Your task to perform on an android device: uninstall "Venmo" Image 0: 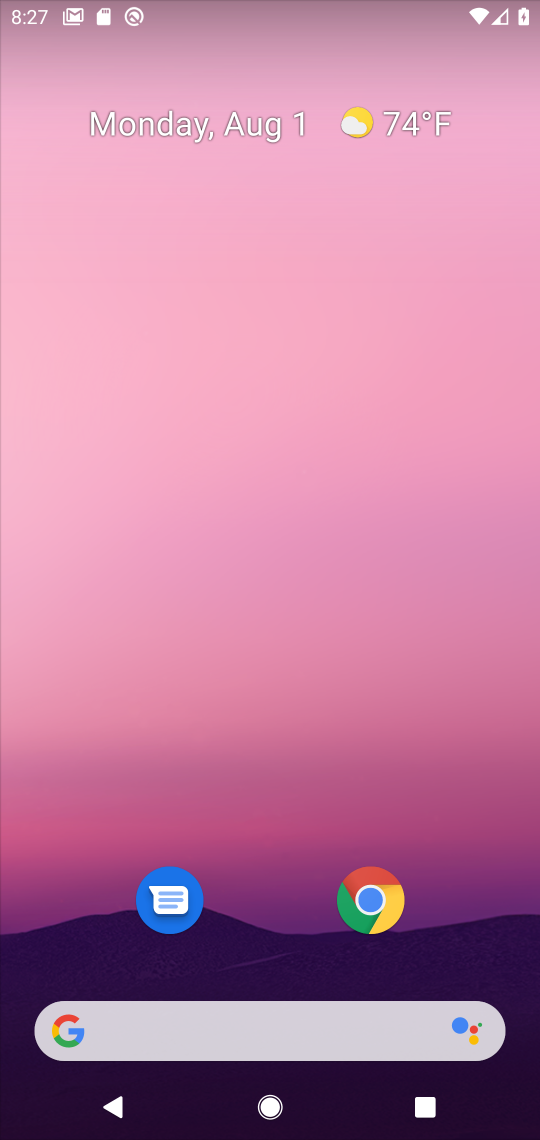
Step 0: drag from (299, 980) to (474, 53)
Your task to perform on an android device: uninstall "Venmo" Image 1: 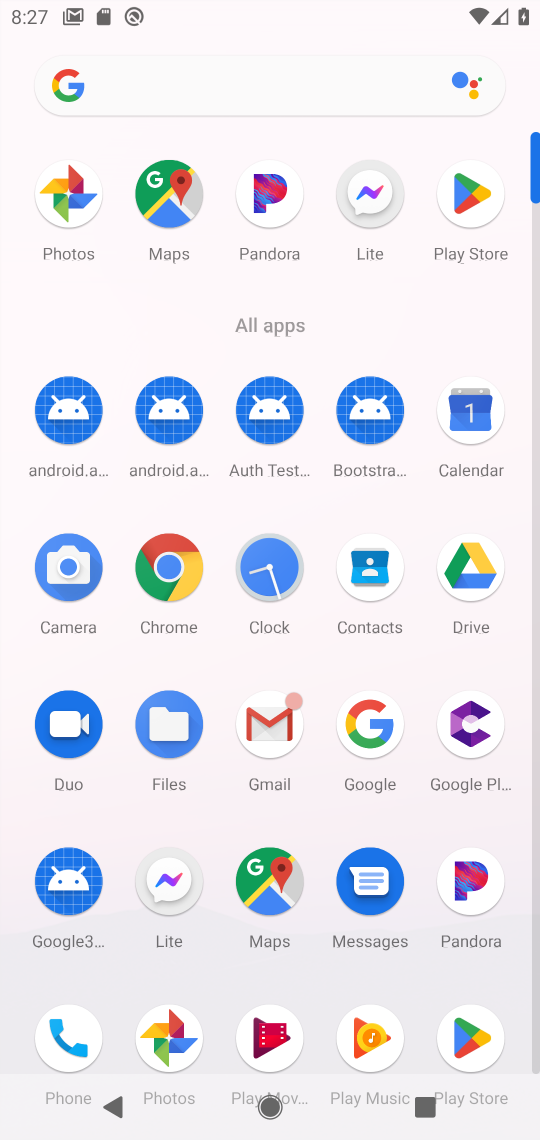
Step 1: click (446, 1046)
Your task to perform on an android device: uninstall "Venmo" Image 2: 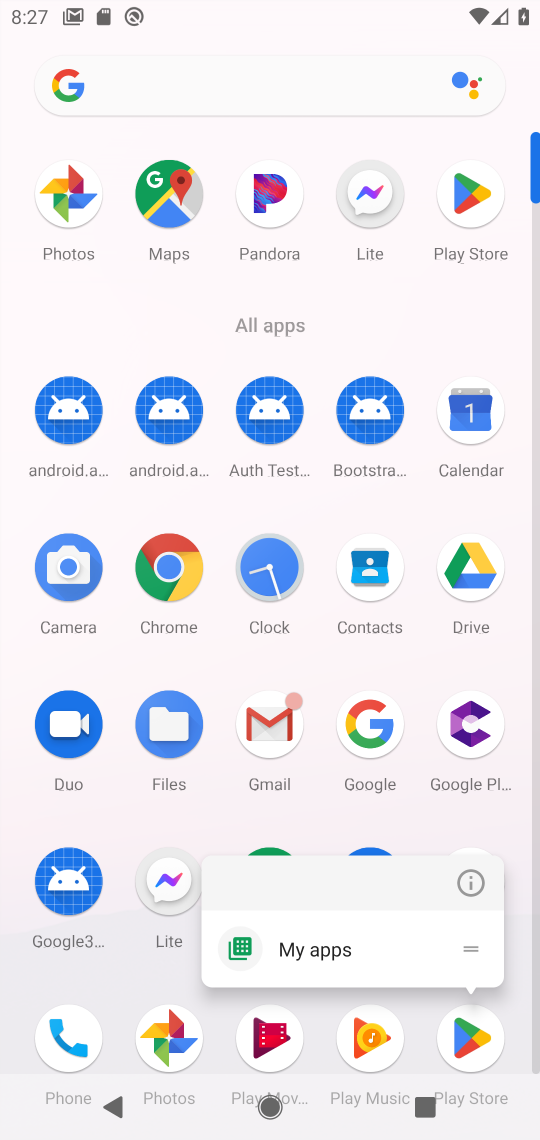
Step 2: click (413, 821)
Your task to perform on an android device: uninstall "Venmo" Image 3: 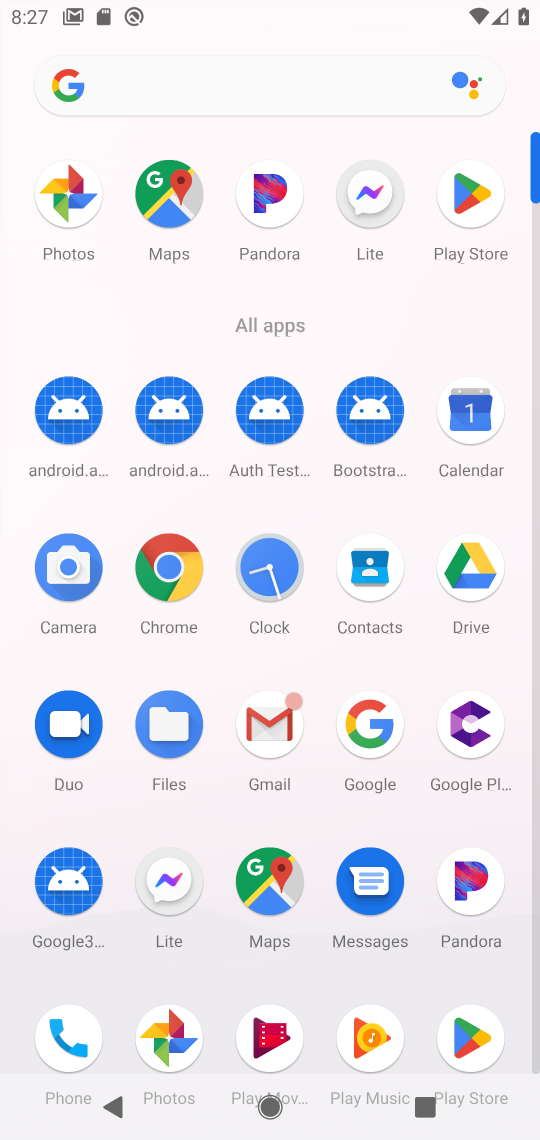
Step 3: click (464, 1020)
Your task to perform on an android device: uninstall "Venmo" Image 4: 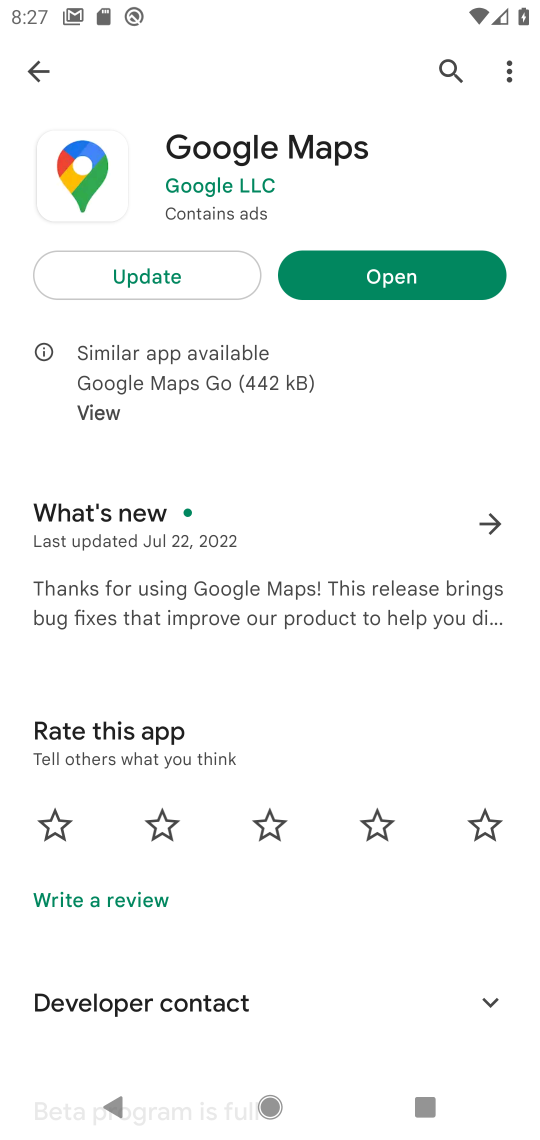
Step 4: click (42, 82)
Your task to perform on an android device: uninstall "Venmo" Image 5: 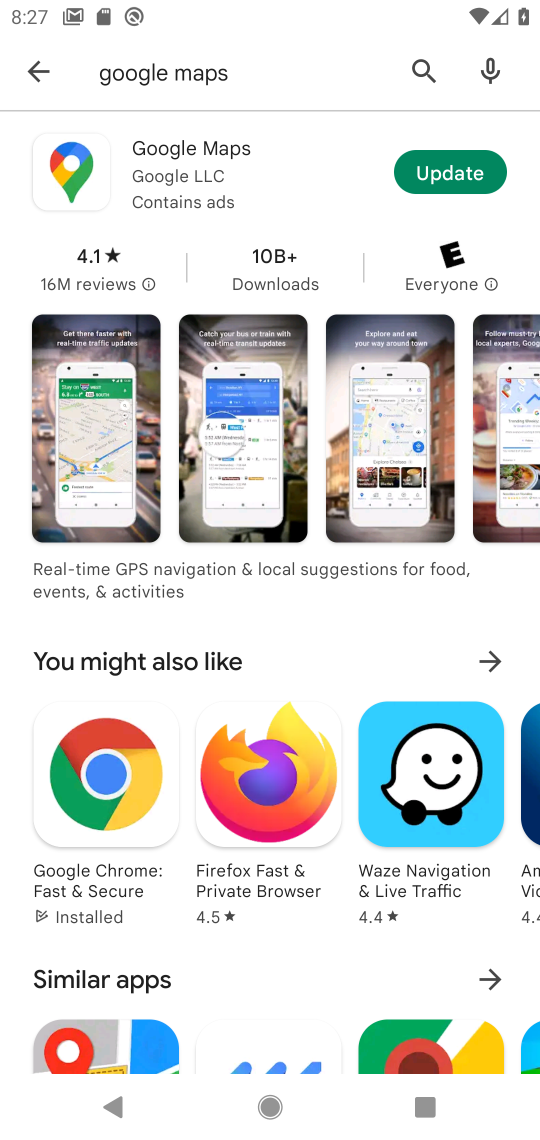
Step 5: click (429, 77)
Your task to perform on an android device: uninstall "Venmo" Image 6: 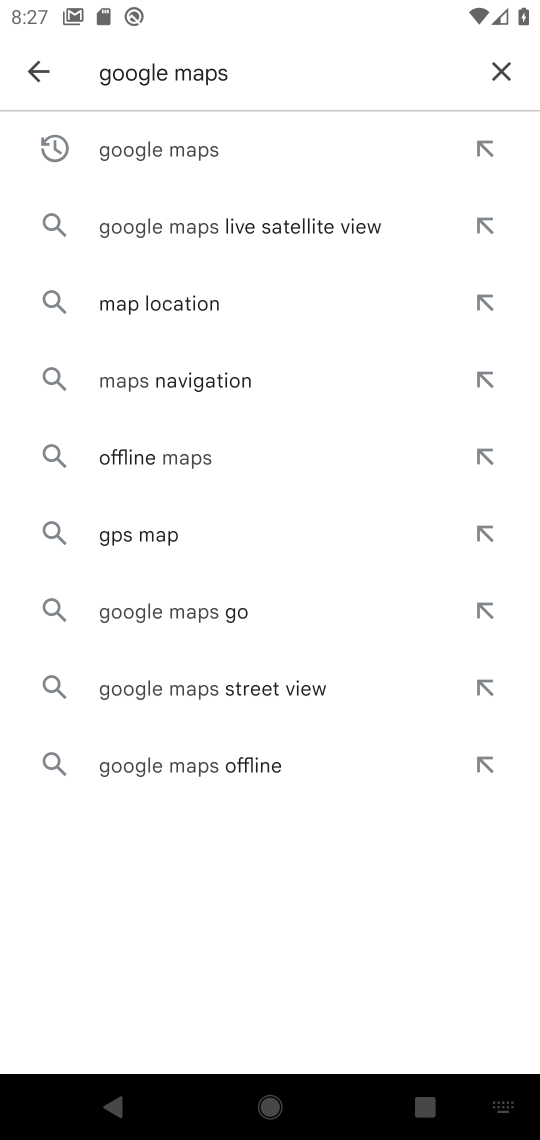
Step 6: type "Venmo"
Your task to perform on an android device: uninstall "Venmo" Image 7: 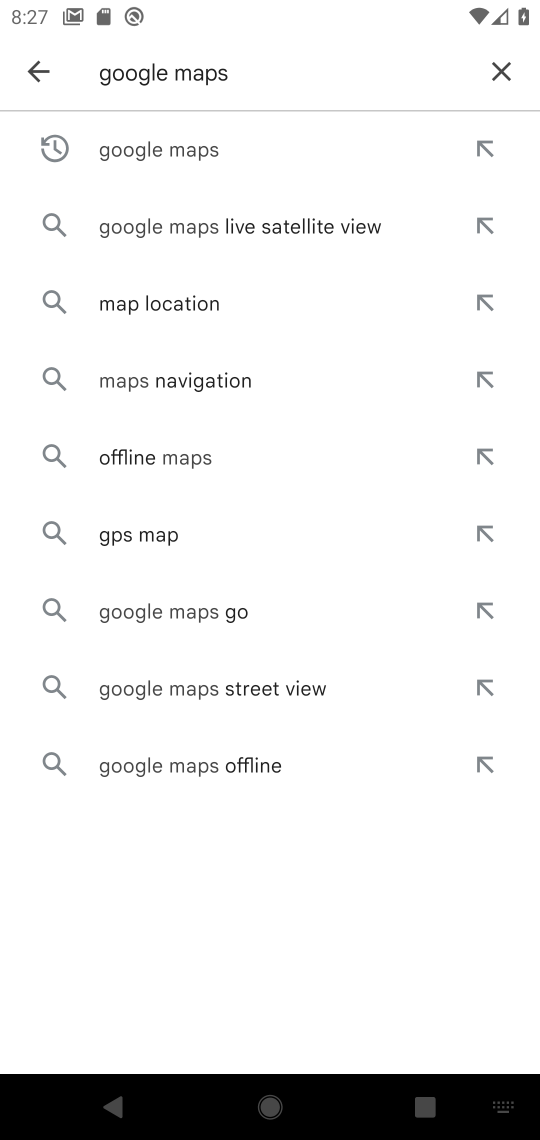
Step 7: click (503, 75)
Your task to perform on an android device: uninstall "Venmo" Image 8: 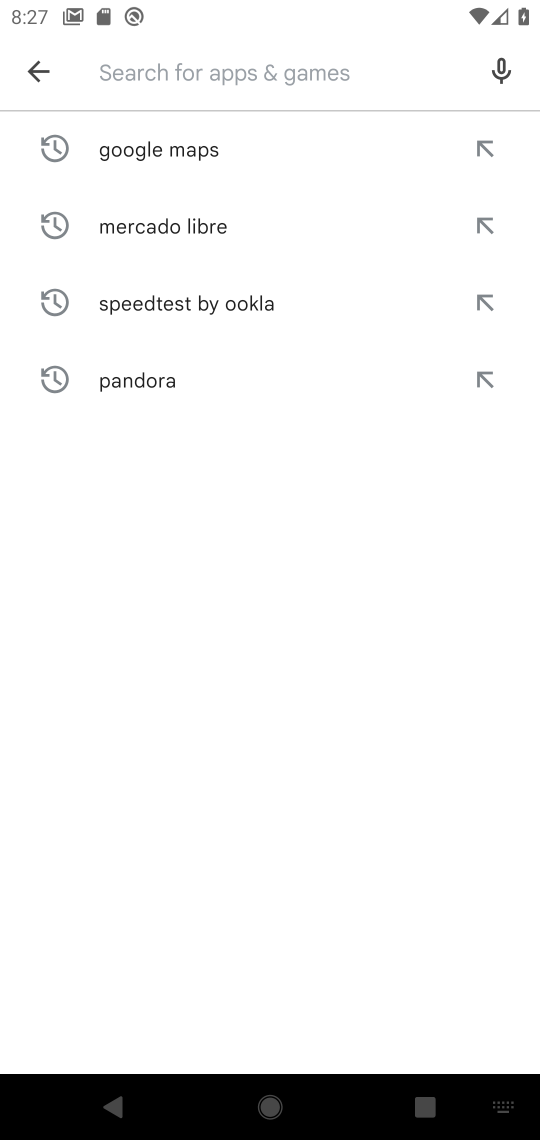
Step 8: drag from (505, 1046) to (524, 990)
Your task to perform on an android device: uninstall "Venmo" Image 9: 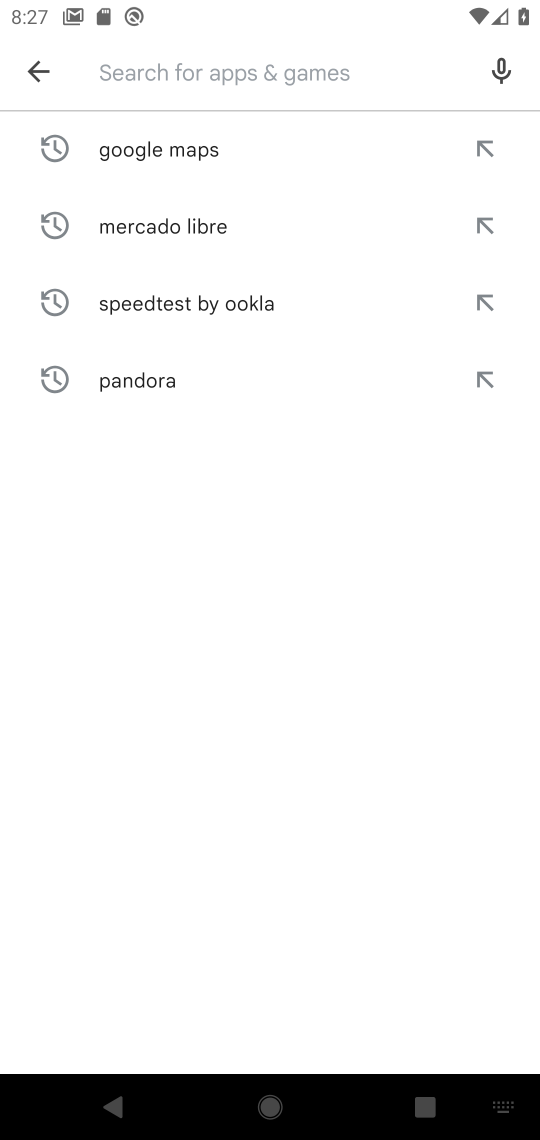
Step 9: click (510, 1082)
Your task to perform on an android device: uninstall "Venmo" Image 10: 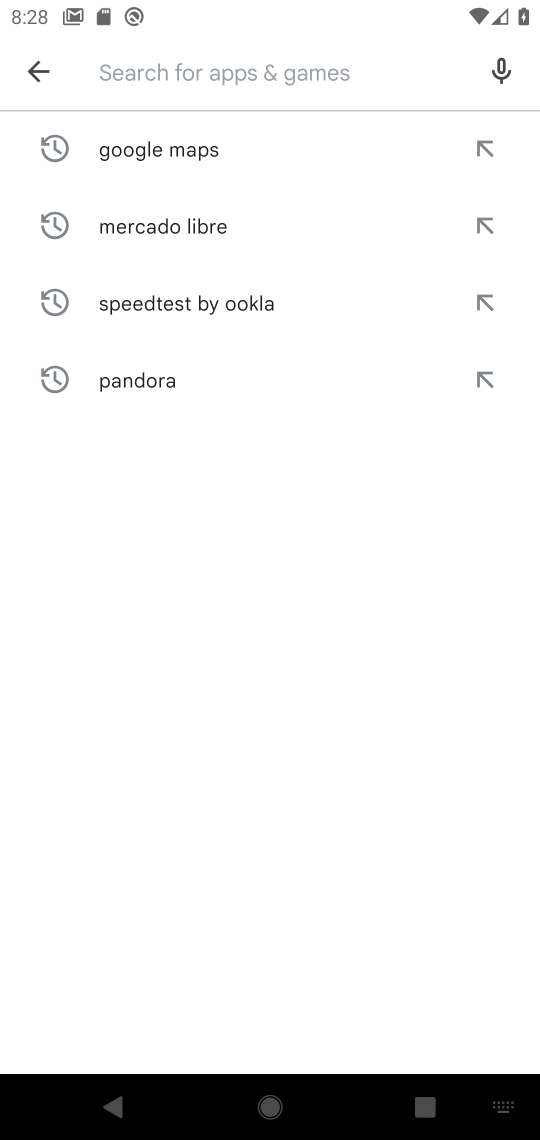
Step 10: type "Venmo"
Your task to perform on an android device: uninstall "Venmo" Image 11: 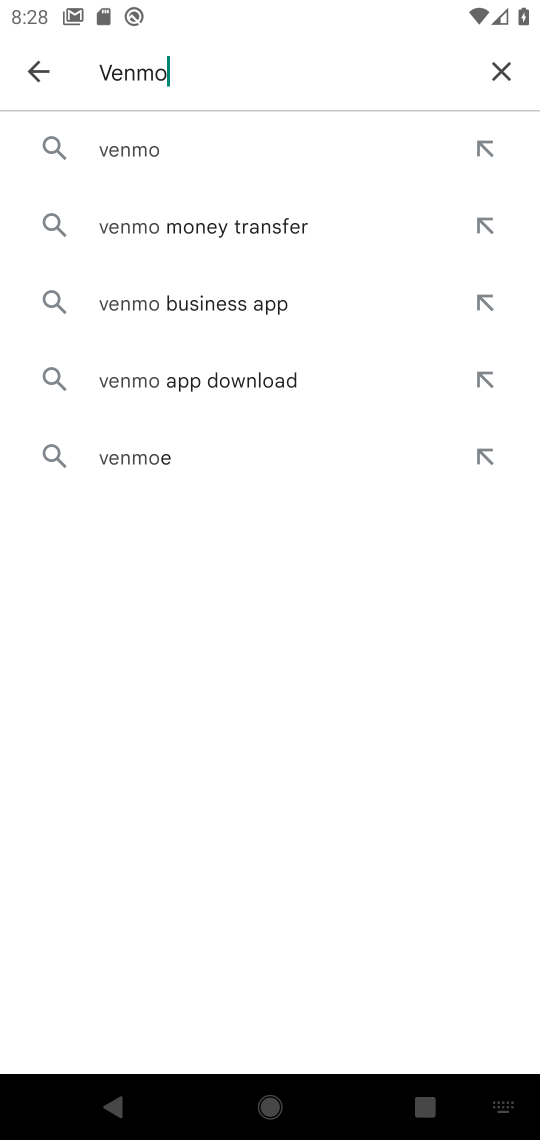
Step 11: click (111, 140)
Your task to perform on an android device: uninstall "Venmo" Image 12: 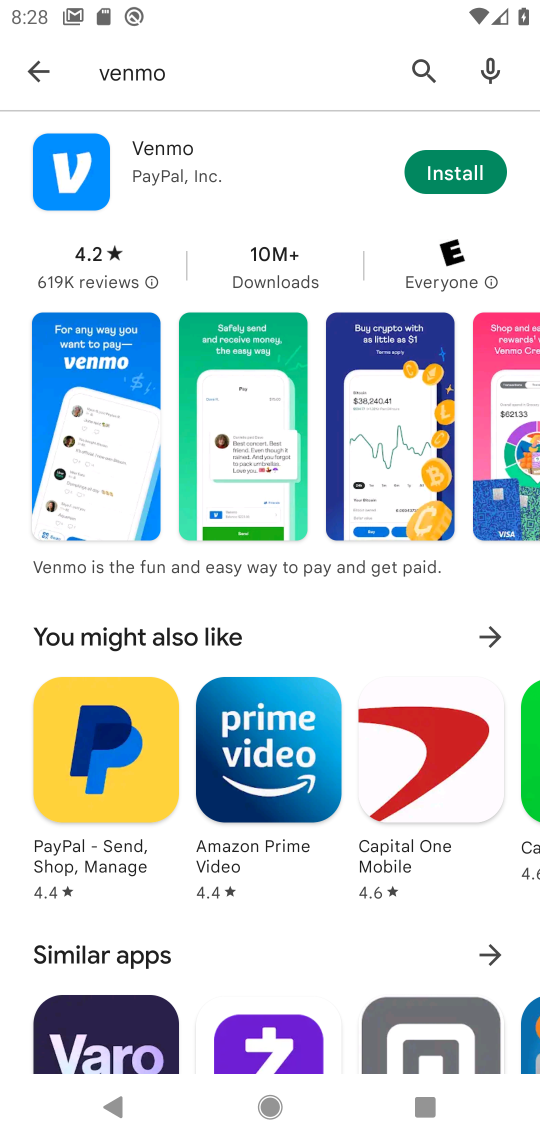
Step 12: task complete